Your task to perform on an android device: turn on sleep mode Image 0: 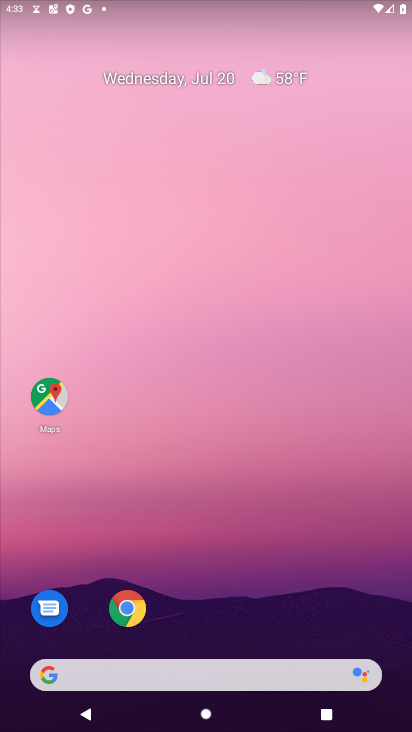
Step 0: drag from (238, 559) to (239, 55)
Your task to perform on an android device: turn on sleep mode Image 1: 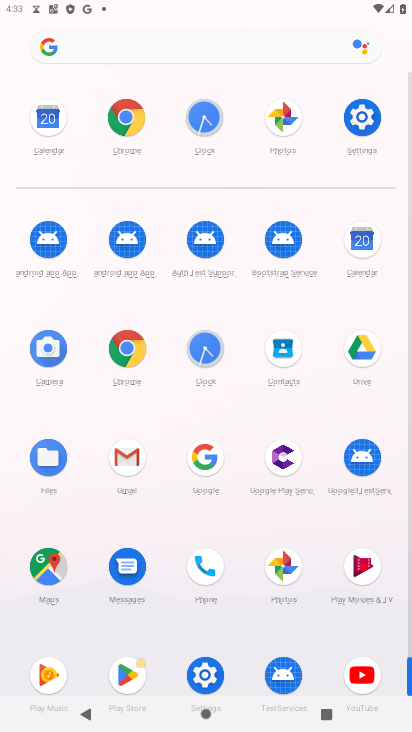
Step 1: click (367, 125)
Your task to perform on an android device: turn on sleep mode Image 2: 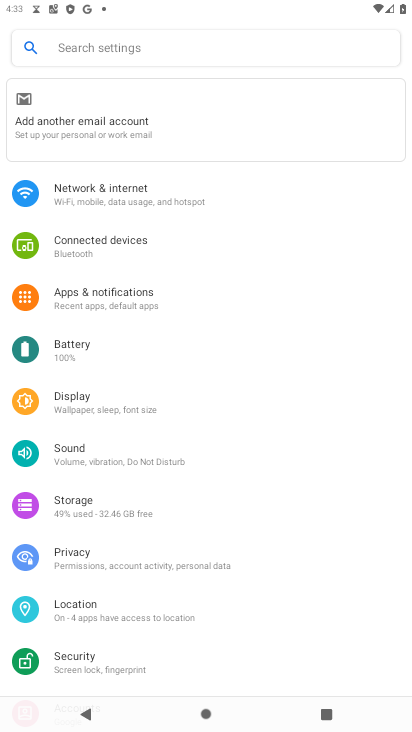
Step 2: click (112, 53)
Your task to perform on an android device: turn on sleep mode Image 3: 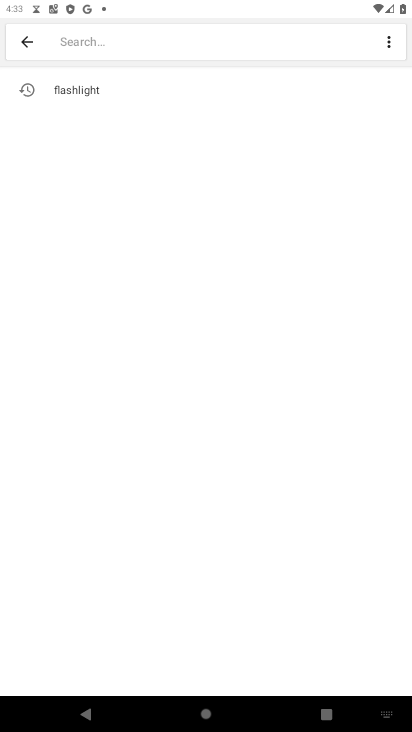
Step 3: type "sleep mode"
Your task to perform on an android device: turn on sleep mode Image 4: 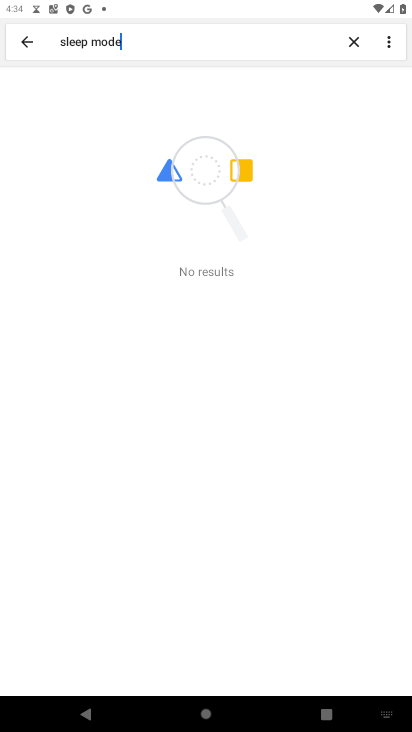
Step 4: click (238, 387)
Your task to perform on an android device: turn on sleep mode Image 5: 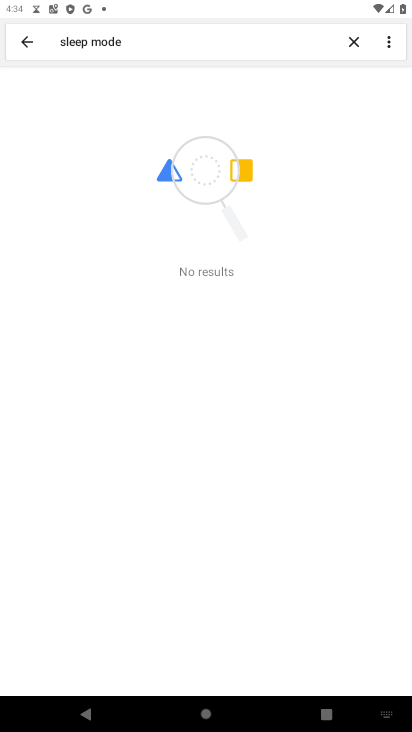
Step 5: task complete